Your task to perform on an android device: Check the news Image 0: 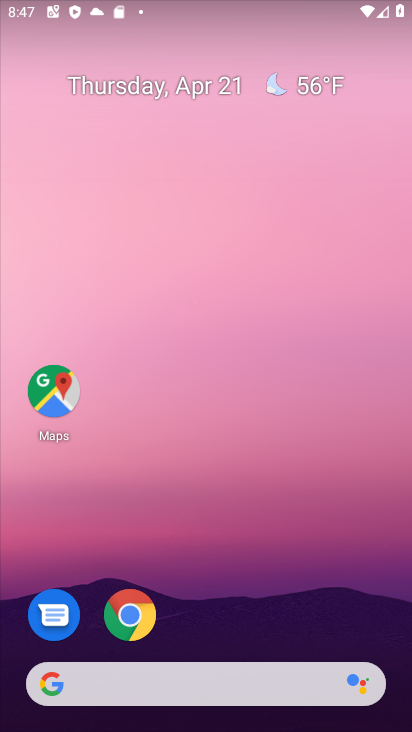
Step 0: drag from (254, 600) to (250, 182)
Your task to perform on an android device: Check the news Image 1: 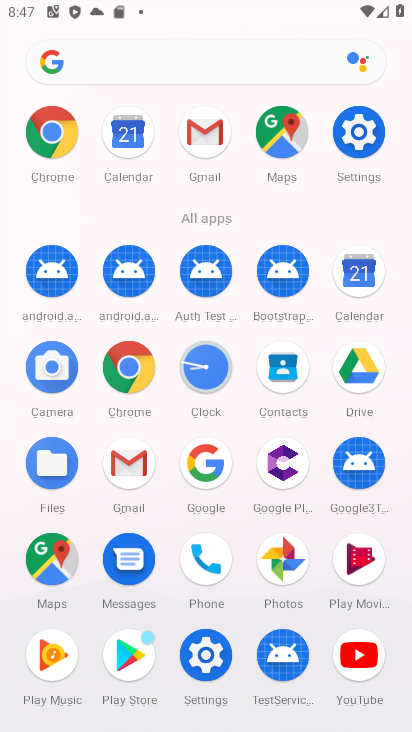
Step 1: click (201, 377)
Your task to perform on an android device: Check the news Image 2: 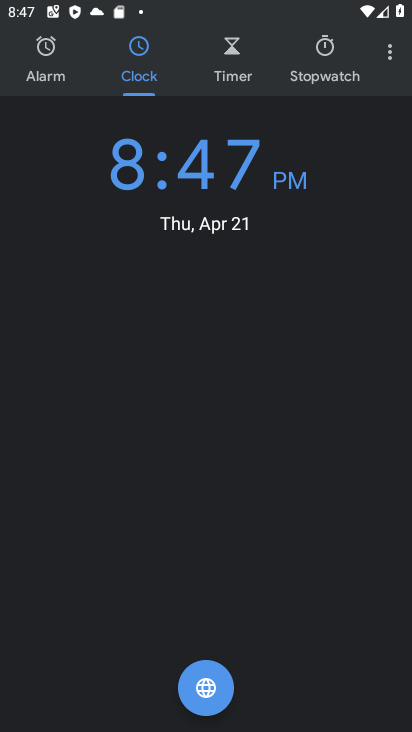
Step 2: click (229, 83)
Your task to perform on an android device: Check the news Image 3: 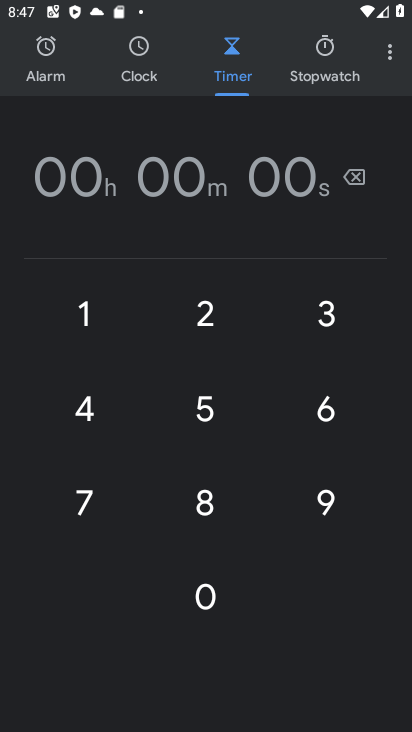
Step 3: click (82, 313)
Your task to perform on an android device: Check the news Image 4: 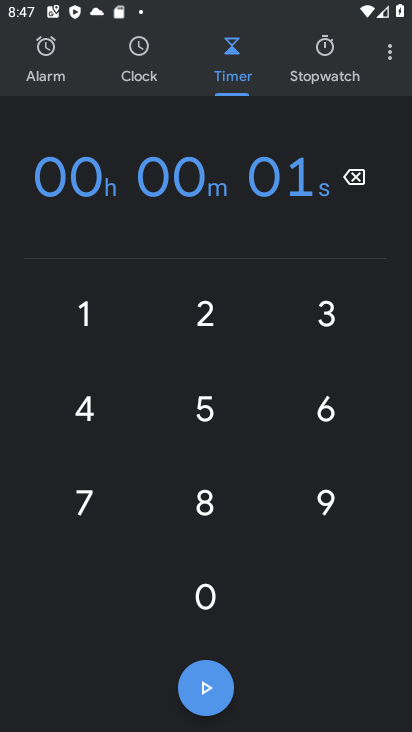
Step 4: click (208, 606)
Your task to perform on an android device: Check the news Image 5: 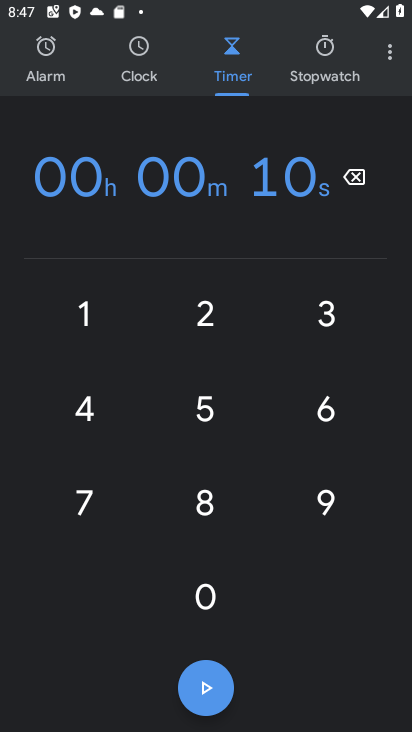
Step 5: click (85, 318)
Your task to perform on an android device: Check the news Image 6: 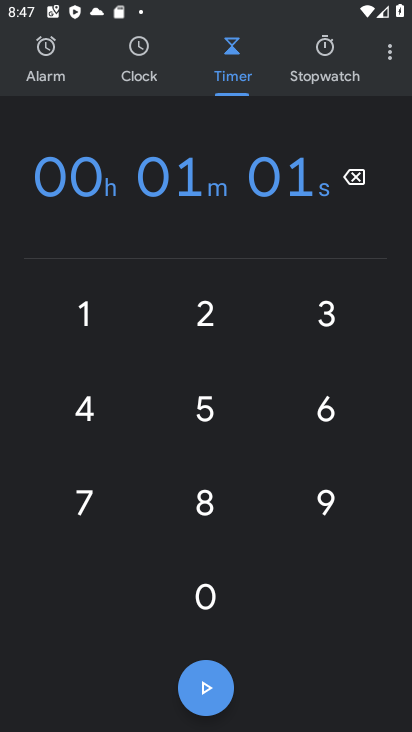
Step 6: click (195, 598)
Your task to perform on an android device: Check the news Image 7: 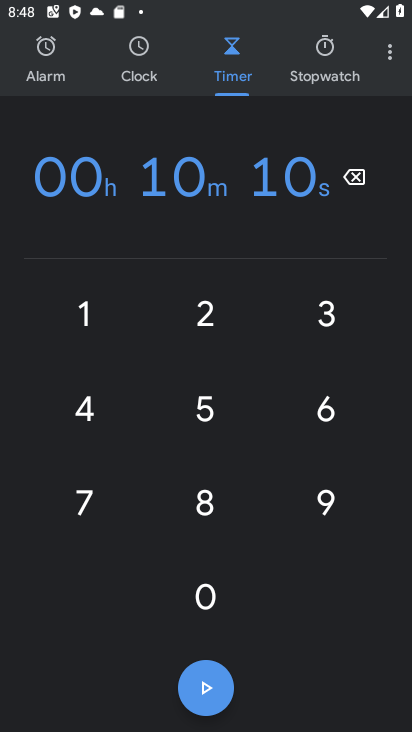
Step 7: click (216, 681)
Your task to perform on an android device: Check the news Image 8: 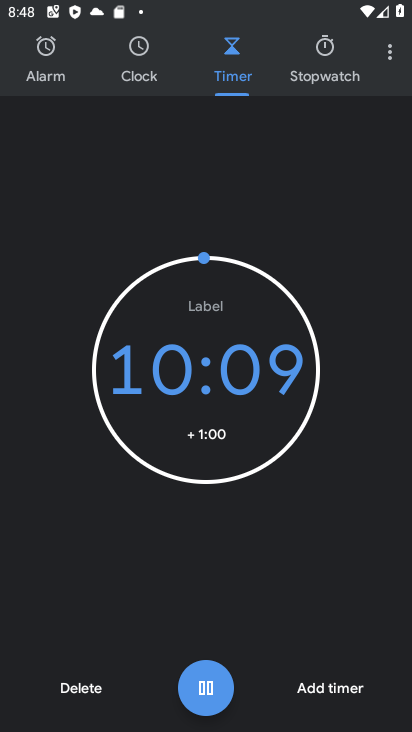
Step 8: click (331, 690)
Your task to perform on an android device: Check the news Image 9: 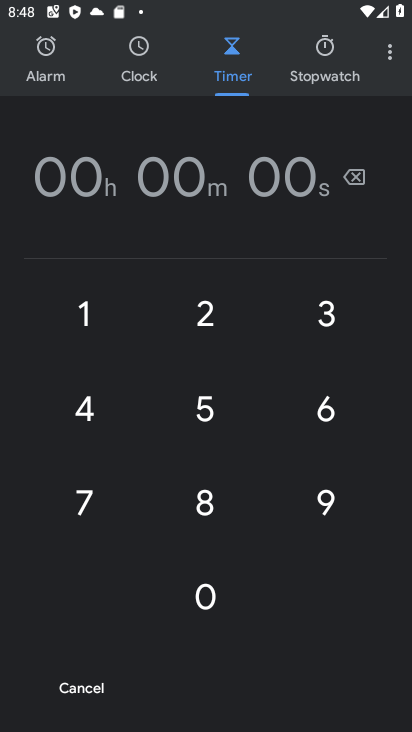
Step 9: task complete